Your task to perform on an android device: turn off improve location accuracy Image 0: 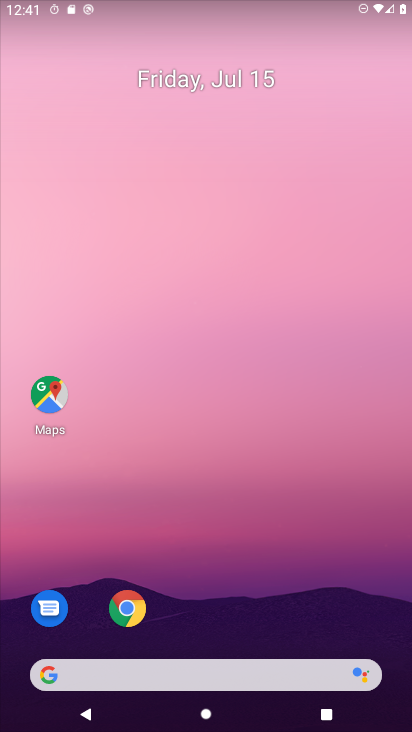
Step 0: drag from (168, 659) to (284, 0)
Your task to perform on an android device: turn off improve location accuracy Image 1: 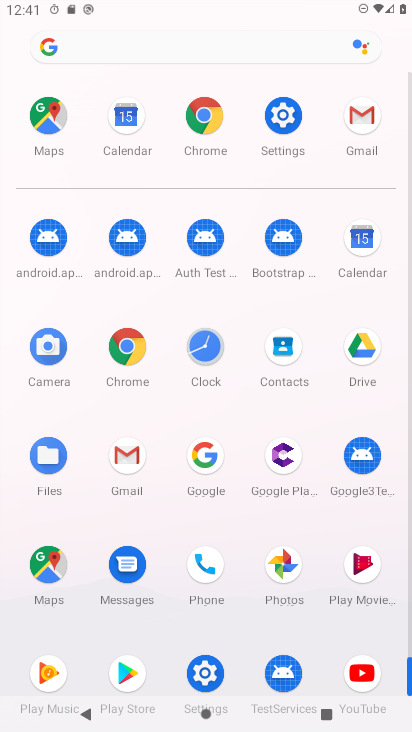
Step 1: click (293, 107)
Your task to perform on an android device: turn off improve location accuracy Image 2: 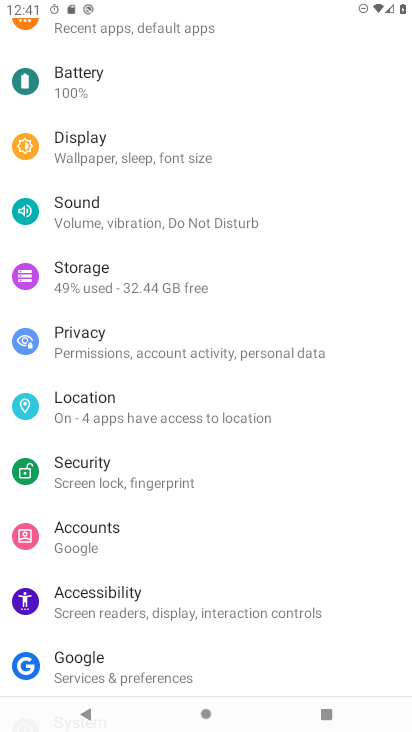
Step 2: click (188, 412)
Your task to perform on an android device: turn off improve location accuracy Image 3: 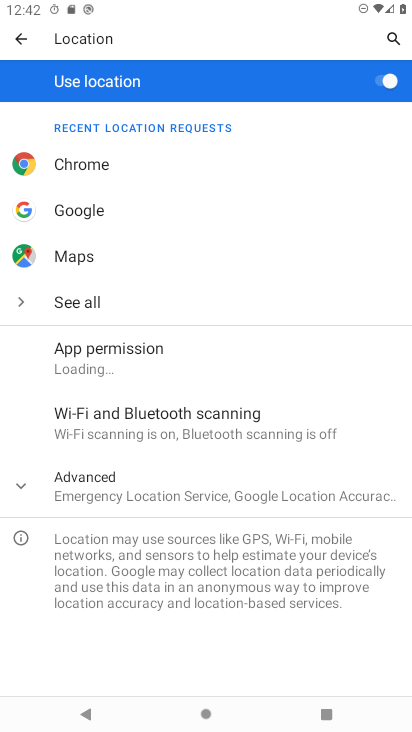
Step 3: click (191, 476)
Your task to perform on an android device: turn off improve location accuracy Image 4: 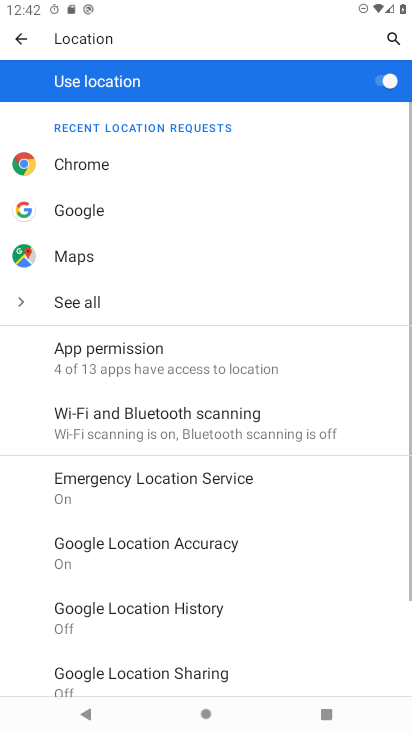
Step 4: click (226, 549)
Your task to perform on an android device: turn off improve location accuracy Image 5: 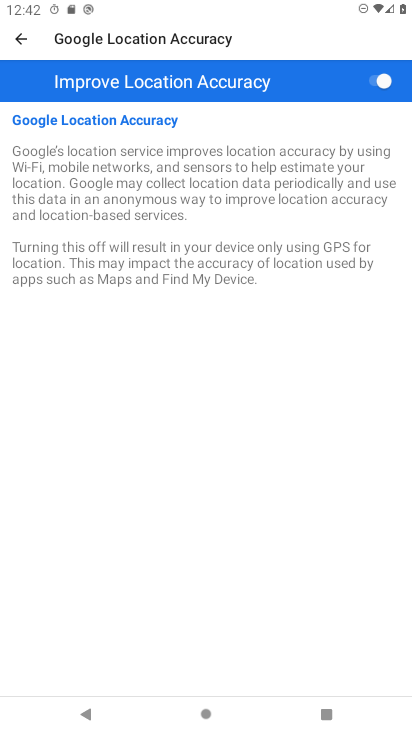
Step 5: click (387, 79)
Your task to perform on an android device: turn off improve location accuracy Image 6: 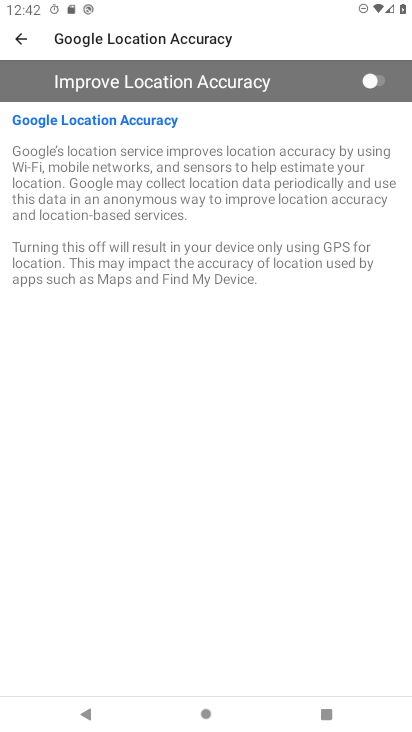
Step 6: task complete